Your task to perform on an android device: Open Google Chrome and open the bookmarks view Image 0: 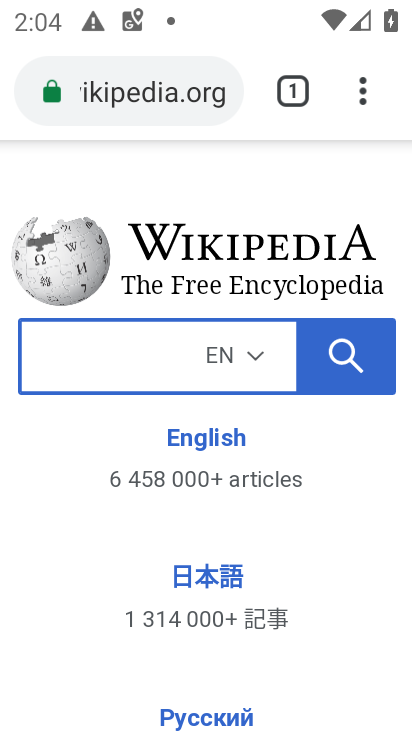
Step 0: press home button
Your task to perform on an android device: Open Google Chrome and open the bookmarks view Image 1: 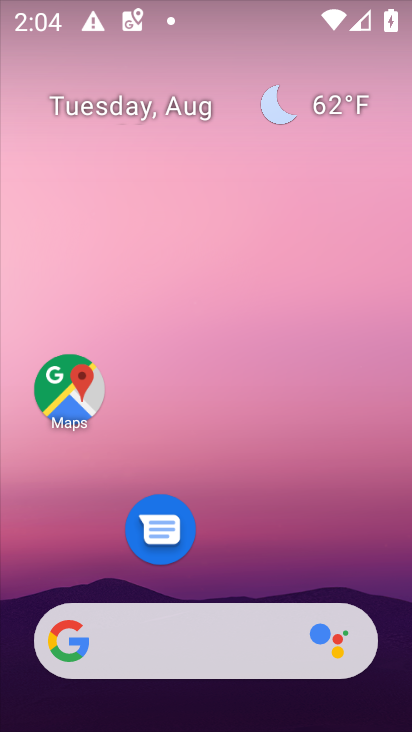
Step 1: drag from (230, 579) to (248, 261)
Your task to perform on an android device: Open Google Chrome and open the bookmarks view Image 2: 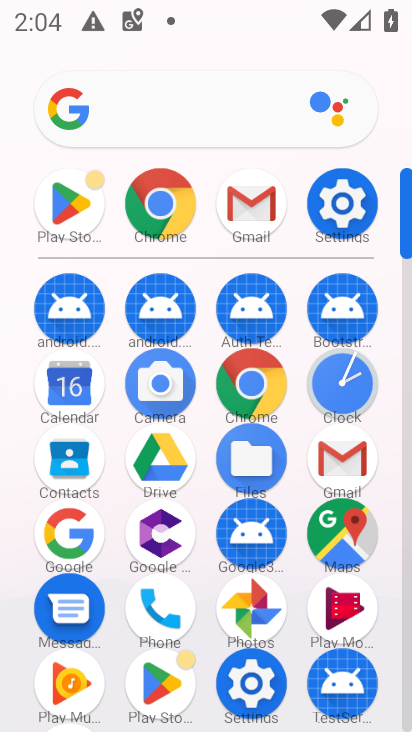
Step 2: click (169, 228)
Your task to perform on an android device: Open Google Chrome and open the bookmarks view Image 3: 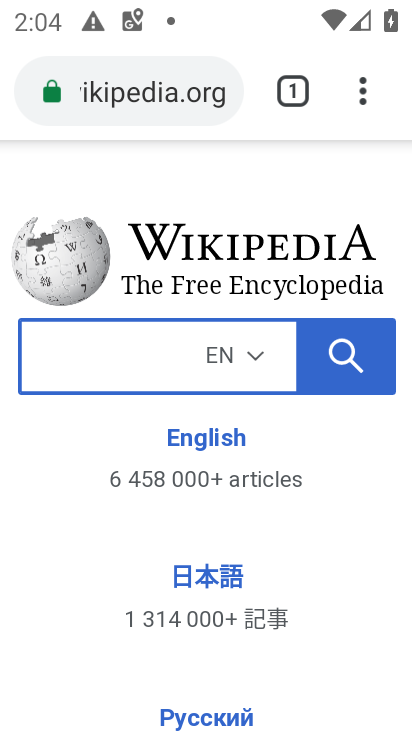
Step 3: click (346, 106)
Your task to perform on an android device: Open Google Chrome and open the bookmarks view Image 4: 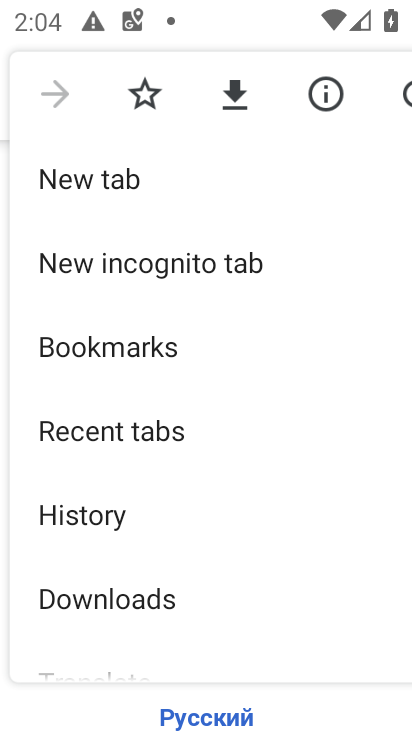
Step 4: task complete